Your task to perform on an android device: Clear all items from cart on costco.com. Search for "usb-a" on costco.com, select the first entry, add it to the cart, then select checkout. Image 0: 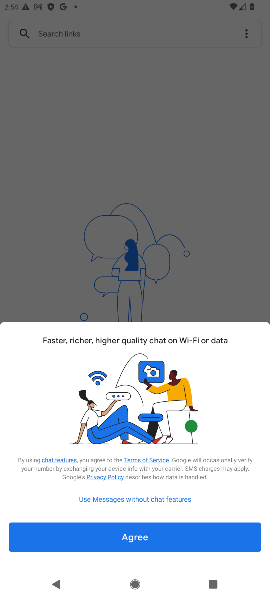
Step 0: press home button
Your task to perform on an android device: Clear all items from cart on costco.com. Search for "usb-a" on costco.com, select the first entry, add it to the cart, then select checkout. Image 1: 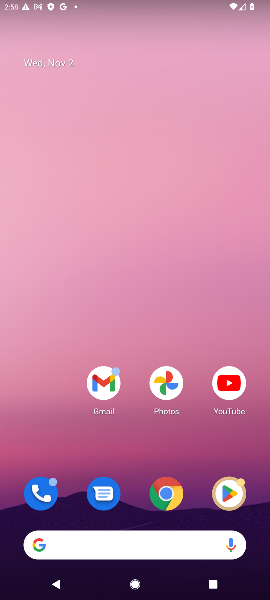
Step 1: drag from (153, 525) to (135, 111)
Your task to perform on an android device: Clear all items from cart on costco.com. Search for "usb-a" on costco.com, select the first entry, add it to the cart, then select checkout. Image 2: 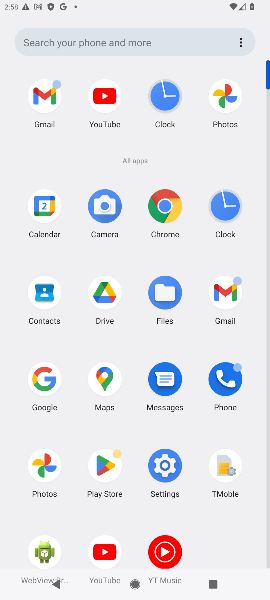
Step 2: click (43, 378)
Your task to perform on an android device: Clear all items from cart on costco.com. Search for "usb-a" on costco.com, select the first entry, add it to the cart, then select checkout. Image 3: 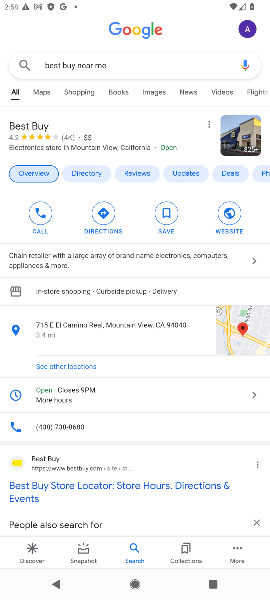
Step 3: click (132, 57)
Your task to perform on an android device: Clear all items from cart on costco.com. Search for "usb-a" on costco.com, select the first entry, add it to the cart, then select checkout. Image 4: 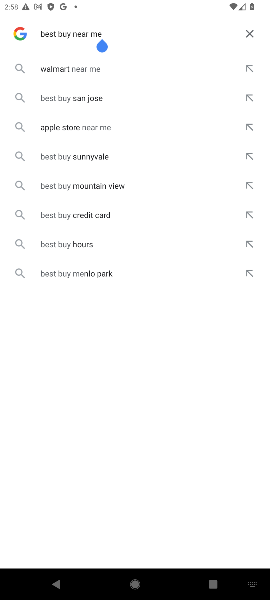
Step 4: click (253, 33)
Your task to perform on an android device: Clear all items from cart on costco.com. Search for "usb-a" on costco.com, select the first entry, add it to the cart, then select checkout. Image 5: 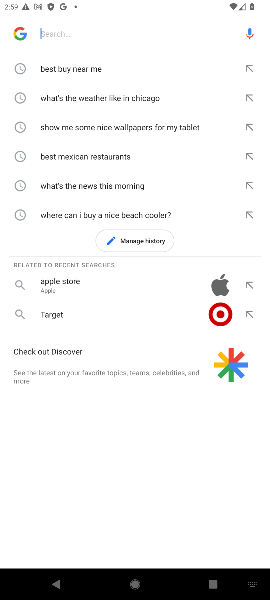
Step 5: click (73, 32)
Your task to perform on an android device: Clear all items from cart on costco.com. Search for "usb-a" on costco.com, select the first entry, add it to the cart, then select checkout. Image 6: 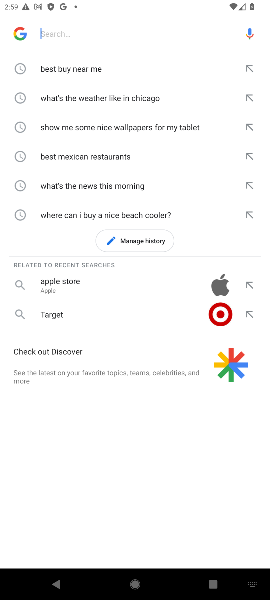
Step 6: type "costco "
Your task to perform on an android device: Clear all items from cart on costco.com. Search for "usb-a" on costco.com, select the first entry, add it to the cart, then select checkout. Image 7: 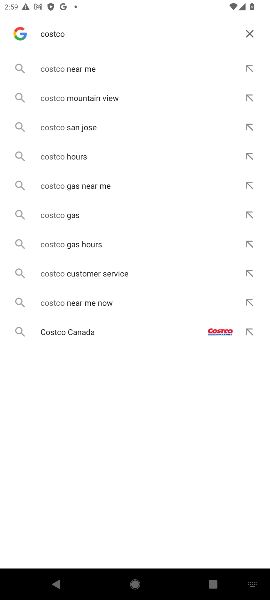
Step 7: click (70, 66)
Your task to perform on an android device: Clear all items from cart on costco.com. Search for "usb-a" on costco.com, select the first entry, add it to the cart, then select checkout. Image 8: 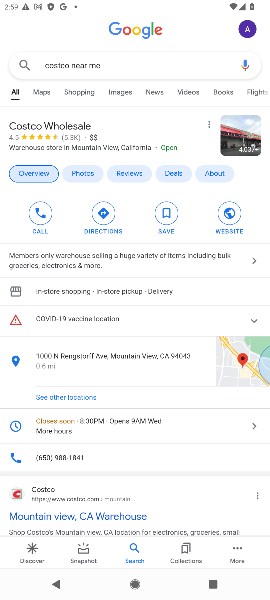
Step 8: click (15, 497)
Your task to perform on an android device: Clear all items from cart on costco.com. Search for "usb-a" on costco.com, select the first entry, add it to the cart, then select checkout. Image 9: 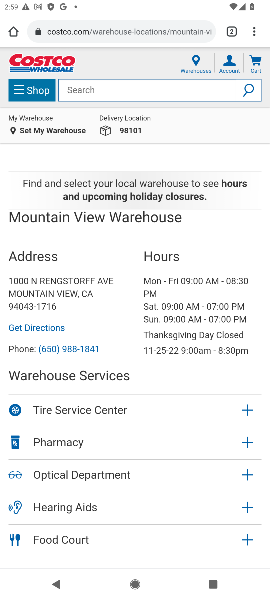
Step 9: click (126, 87)
Your task to perform on an android device: Clear all items from cart on costco.com. Search for "usb-a" on costco.com, select the first entry, add it to the cart, then select checkout. Image 10: 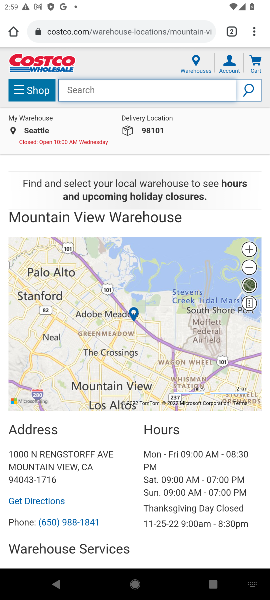
Step 10: click (144, 81)
Your task to perform on an android device: Clear all items from cart on costco.com. Search for "usb-a" on costco.com, select the first entry, add it to the cart, then select checkout. Image 11: 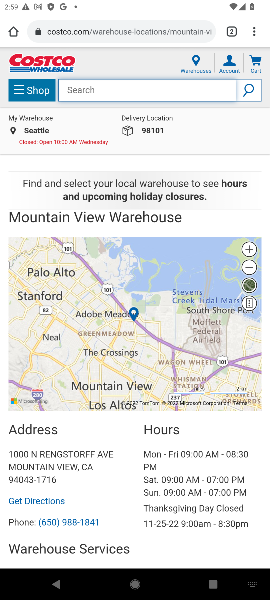
Step 11: click (154, 88)
Your task to perform on an android device: Clear all items from cart on costco.com. Search for "usb-a" on costco.com, select the first entry, add it to the cart, then select checkout. Image 12: 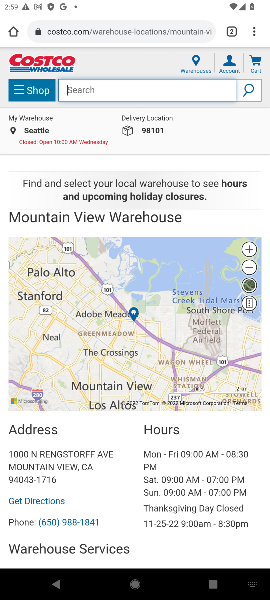
Step 12: type "usb-a "
Your task to perform on an android device: Clear all items from cart on costco.com. Search for "usb-a" on costco.com, select the first entry, add it to the cart, then select checkout. Image 13: 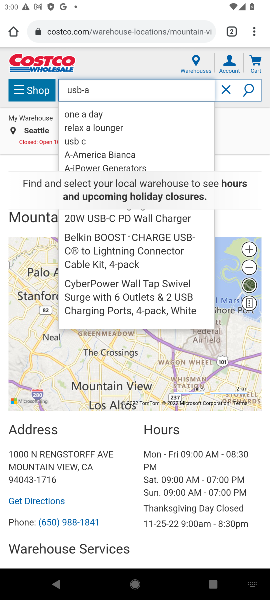
Step 13: click (64, 140)
Your task to perform on an android device: Clear all items from cart on costco.com. Search for "usb-a" on costco.com, select the first entry, add it to the cart, then select checkout. Image 14: 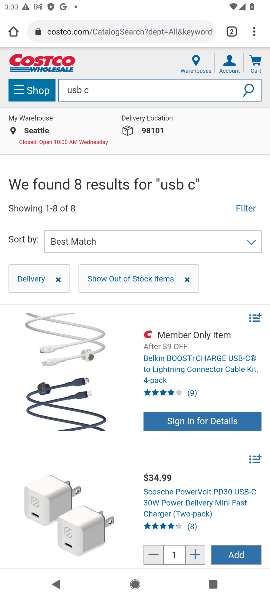
Step 14: drag from (112, 511) to (124, 369)
Your task to perform on an android device: Clear all items from cart on costco.com. Search for "usb-a" on costco.com, select the first entry, add it to the cart, then select checkout. Image 15: 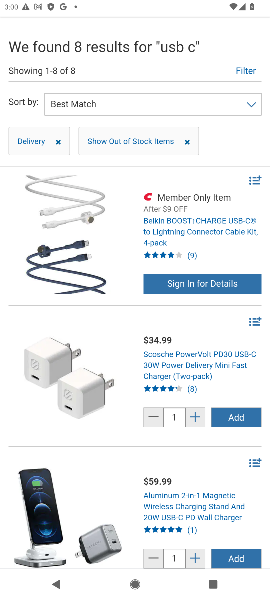
Step 15: drag from (112, 516) to (109, 572)
Your task to perform on an android device: Clear all items from cart on costco.com. Search for "usb-a" on costco.com, select the first entry, add it to the cart, then select checkout. Image 16: 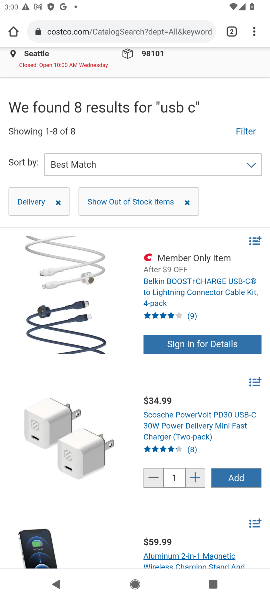
Step 16: drag from (103, 519) to (118, 255)
Your task to perform on an android device: Clear all items from cart on costco.com. Search for "usb-a" on costco.com, select the first entry, add it to the cart, then select checkout. Image 17: 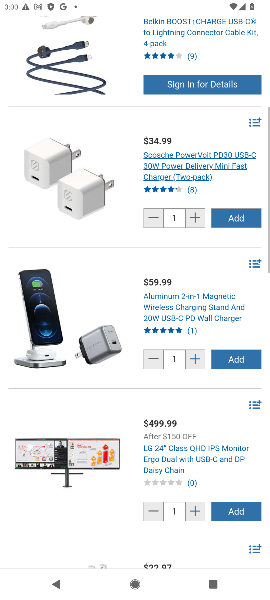
Step 17: drag from (47, 510) to (77, 285)
Your task to perform on an android device: Clear all items from cart on costco.com. Search for "usb-a" on costco.com, select the first entry, add it to the cart, then select checkout. Image 18: 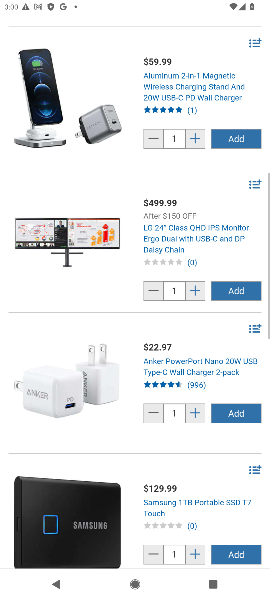
Step 18: drag from (68, 446) to (104, 187)
Your task to perform on an android device: Clear all items from cart on costco.com. Search for "usb-a" on costco.com, select the first entry, add it to the cart, then select checkout. Image 19: 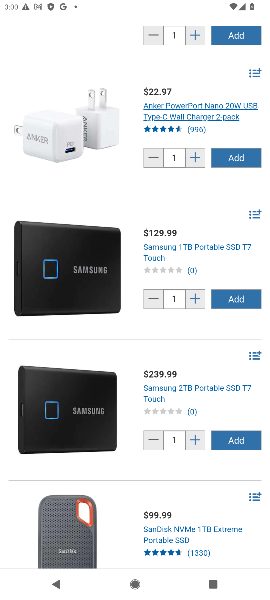
Step 19: drag from (127, 517) to (145, 192)
Your task to perform on an android device: Clear all items from cart on costco.com. Search for "usb-a" on costco.com, select the first entry, add it to the cart, then select checkout. Image 20: 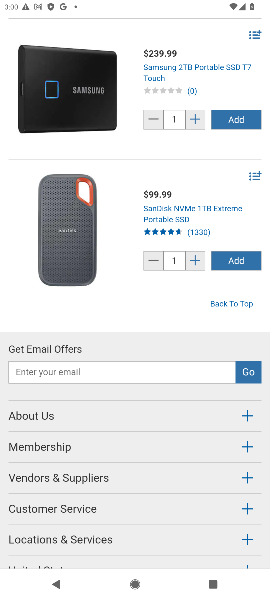
Step 20: drag from (144, 154) to (133, 493)
Your task to perform on an android device: Clear all items from cart on costco.com. Search for "usb-a" on costco.com, select the first entry, add it to the cart, then select checkout. Image 21: 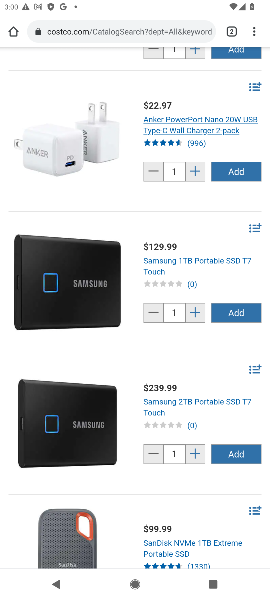
Step 21: drag from (128, 185) to (124, 465)
Your task to perform on an android device: Clear all items from cart on costco.com. Search for "usb-a" on costco.com, select the first entry, add it to the cart, then select checkout. Image 22: 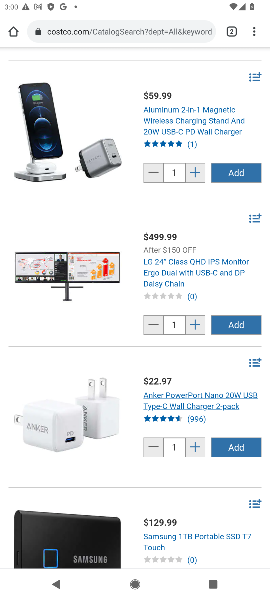
Step 22: drag from (103, 165) to (121, 492)
Your task to perform on an android device: Clear all items from cart on costco.com. Search for "usb-a" on costco.com, select the first entry, add it to the cart, then select checkout. Image 23: 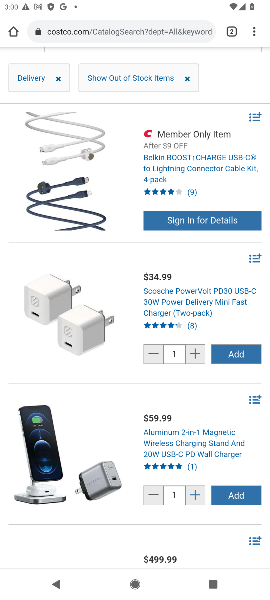
Step 23: drag from (125, 230) to (133, 454)
Your task to perform on an android device: Clear all items from cart on costco.com. Search for "usb-a" on costco.com, select the first entry, add it to the cart, then select checkout. Image 24: 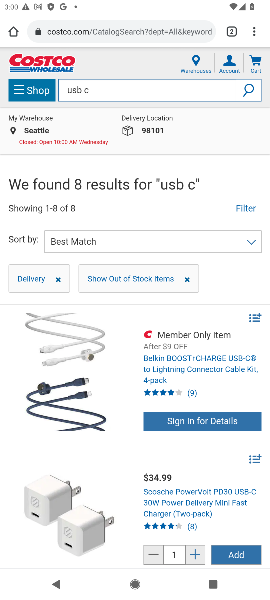
Step 24: click (111, 92)
Your task to perform on an android device: Clear all items from cart on costco.com. Search for "usb-a" on costco.com, select the first entry, add it to the cart, then select checkout. Image 25: 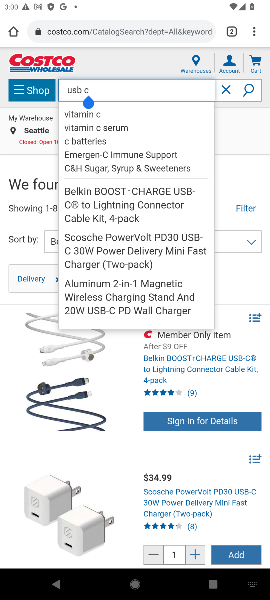
Step 25: click (225, 92)
Your task to perform on an android device: Clear all items from cart on costco.com. Search for "usb-a" on costco.com, select the first entry, add it to the cart, then select checkout. Image 26: 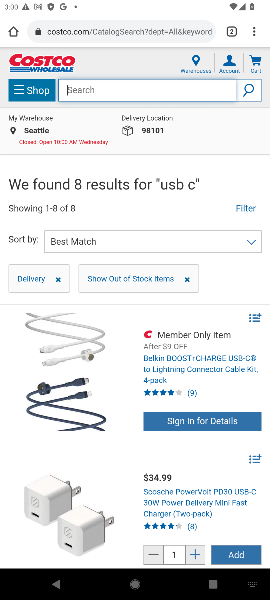
Step 26: click (131, 91)
Your task to perform on an android device: Clear all items from cart on costco.com. Search for "usb-a" on costco.com, select the first entry, add it to the cart, then select checkout. Image 27: 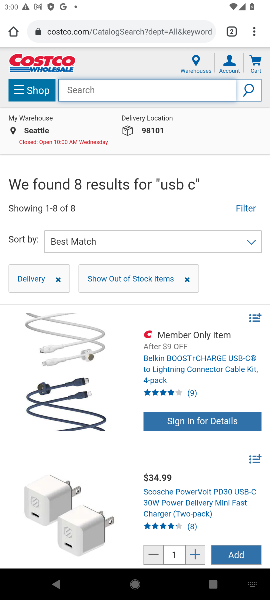
Step 27: type "usb "
Your task to perform on an android device: Clear all items from cart on costco.com. Search for "usb-a" on costco.com, select the first entry, add it to the cart, then select checkout. Image 28: 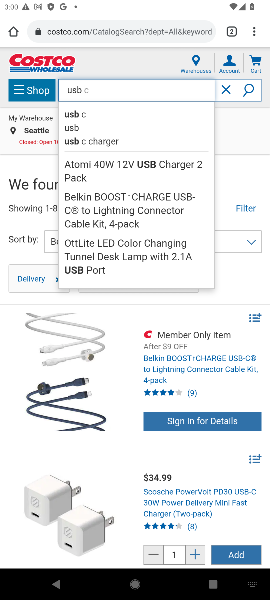
Step 28: click (69, 128)
Your task to perform on an android device: Clear all items from cart on costco.com. Search for "usb-a" on costco.com, select the first entry, add it to the cart, then select checkout. Image 29: 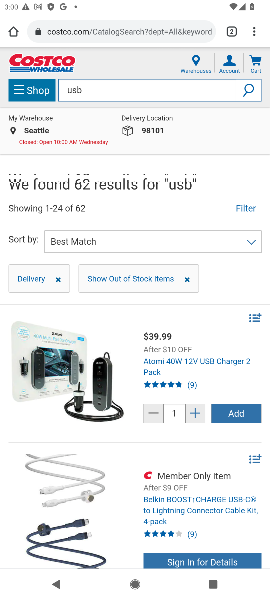
Step 29: drag from (156, 525) to (160, 268)
Your task to perform on an android device: Clear all items from cart on costco.com. Search for "usb-a" on costco.com, select the first entry, add it to the cart, then select checkout. Image 30: 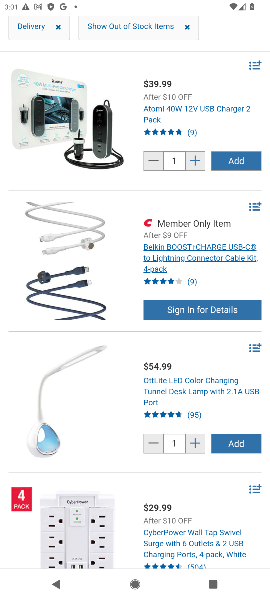
Step 30: drag from (90, 150) to (72, 437)
Your task to perform on an android device: Clear all items from cart on costco.com. Search for "usb-a" on costco.com, select the first entry, add it to the cart, then select checkout. Image 31: 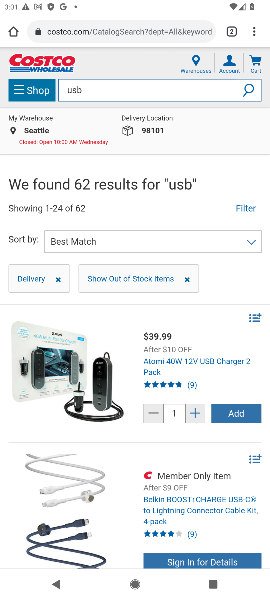
Step 31: click (128, 84)
Your task to perform on an android device: Clear all items from cart on costco.com. Search for "usb-a" on costco.com, select the first entry, add it to the cart, then select checkout. Image 32: 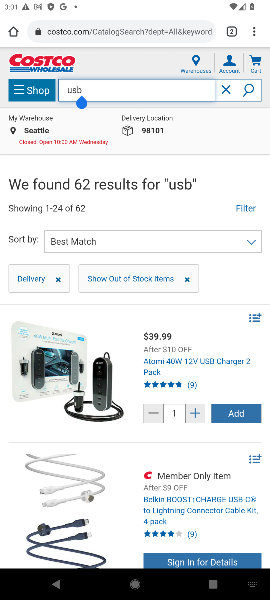
Step 32: click (221, 87)
Your task to perform on an android device: Clear all items from cart on costco.com. Search for "usb-a" on costco.com, select the first entry, add it to the cart, then select checkout. Image 33: 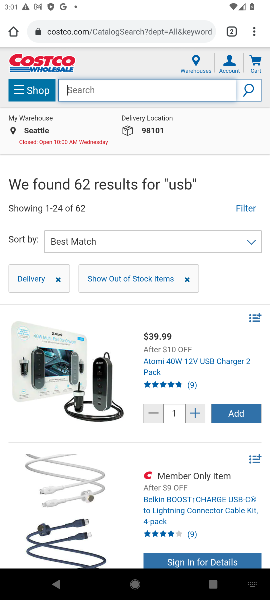
Step 33: click (128, 87)
Your task to perform on an android device: Clear all items from cart on costco.com. Search for "usb-a" on costco.com, select the first entry, add it to the cart, then select checkout. Image 34: 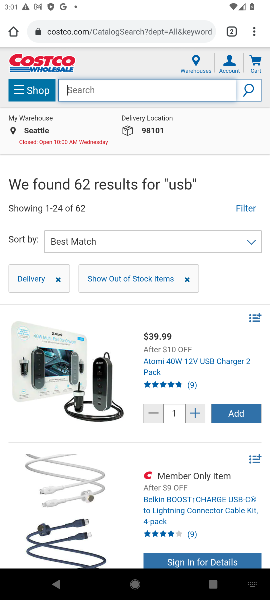
Step 34: type "usb "
Your task to perform on an android device: Clear all items from cart on costco.com. Search for "usb-a" on costco.com, select the first entry, add it to the cart, then select checkout. Image 35: 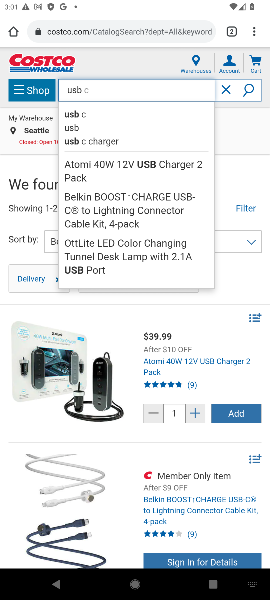
Step 35: click (76, 110)
Your task to perform on an android device: Clear all items from cart on costco.com. Search for "usb-a" on costco.com, select the first entry, add it to the cart, then select checkout. Image 36: 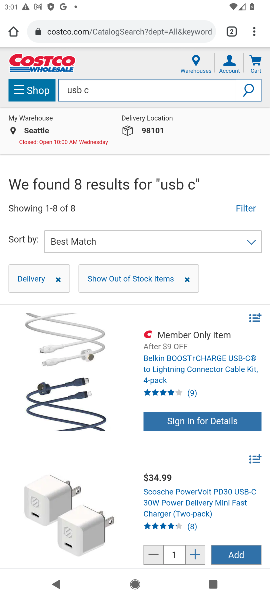
Step 36: click (249, 85)
Your task to perform on an android device: Clear all items from cart on costco.com. Search for "usb-a" on costco.com, select the first entry, add it to the cart, then select checkout. Image 37: 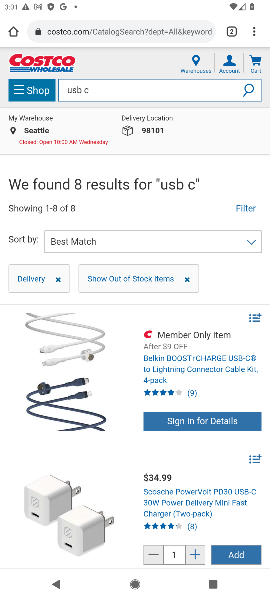
Step 37: task complete